Your task to perform on an android device: Go to notification settings Image 0: 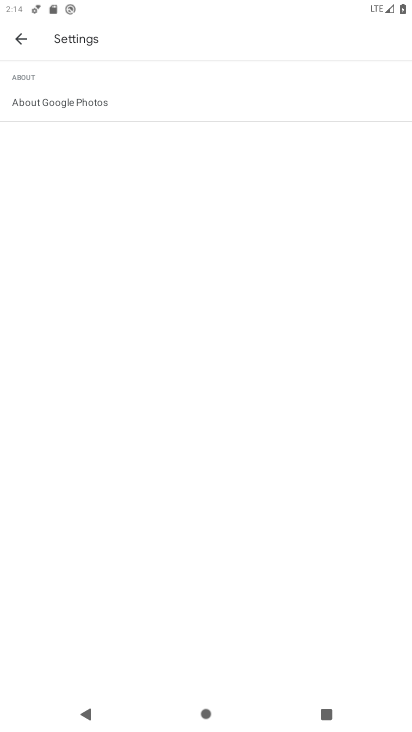
Step 0: press home button
Your task to perform on an android device: Go to notification settings Image 1: 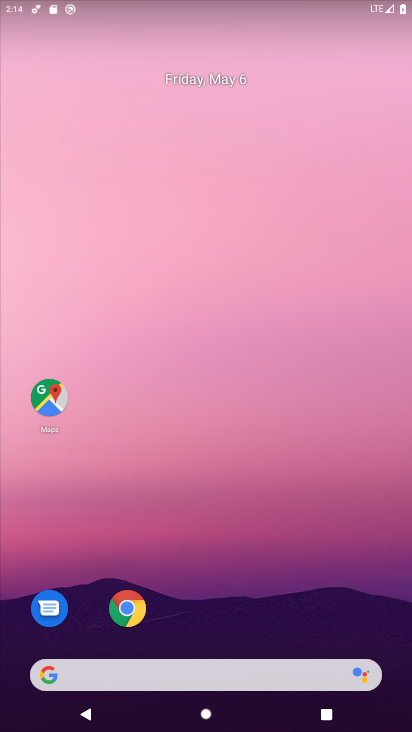
Step 1: drag from (221, 605) to (148, 26)
Your task to perform on an android device: Go to notification settings Image 2: 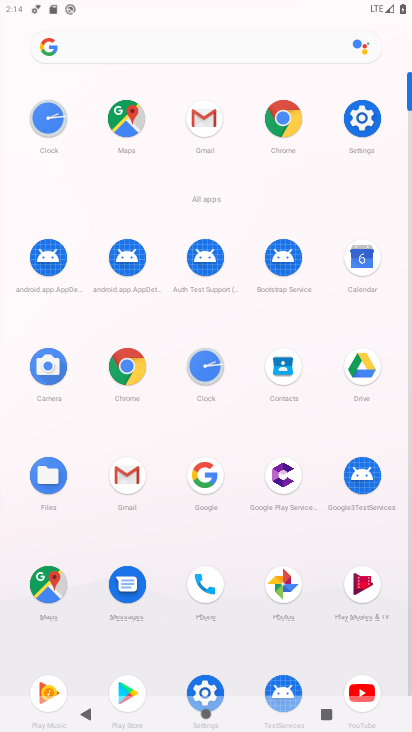
Step 2: click (350, 130)
Your task to perform on an android device: Go to notification settings Image 3: 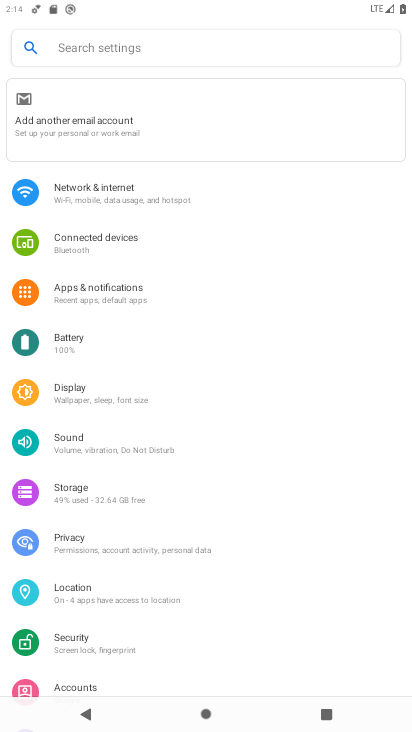
Step 3: click (121, 300)
Your task to perform on an android device: Go to notification settings Image 4: 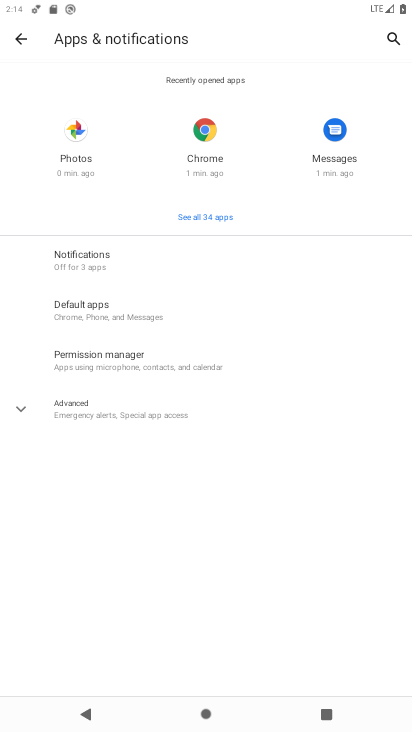
Step 4: click (105, 252)
Your task to perform on an android device: Go to notification settings Image 5: 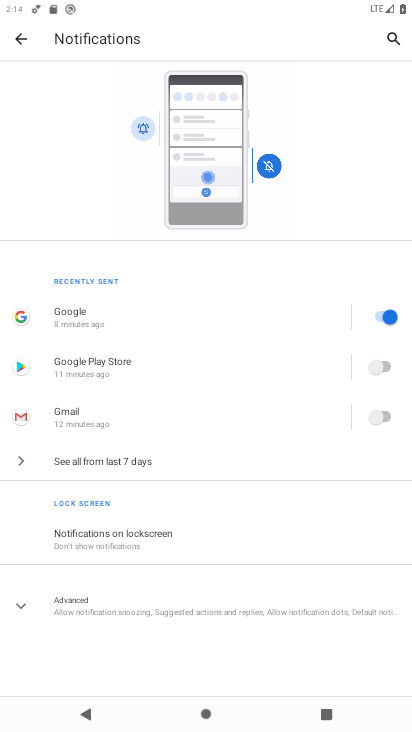
Step 5: task complete